Your task to perform on an android device: Open battery settings Image 0: 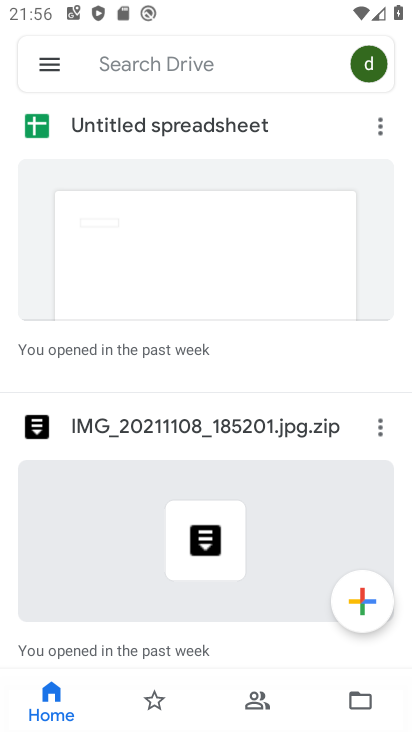
Step 0: press home button
Your task to perform on an android device: Open battery settings Image 1: 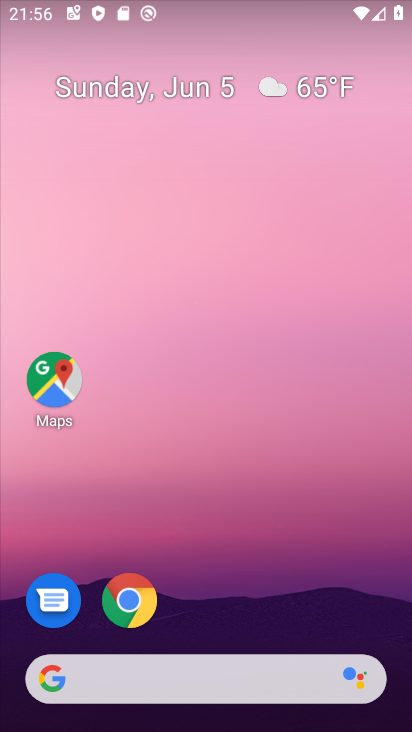
Step 1: drag from (293, 566) to (246, 194)
Your task to perform on an android device: Open battery settings Image 2: 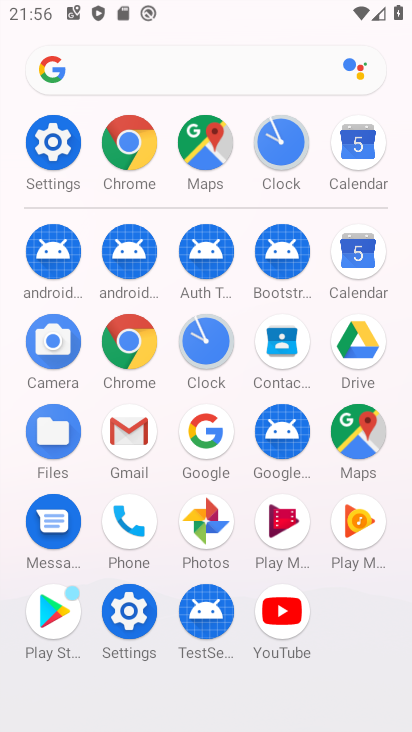
Step 2: click (39, 144)
Your task to perform on an android device: Open battery settings Image 3: 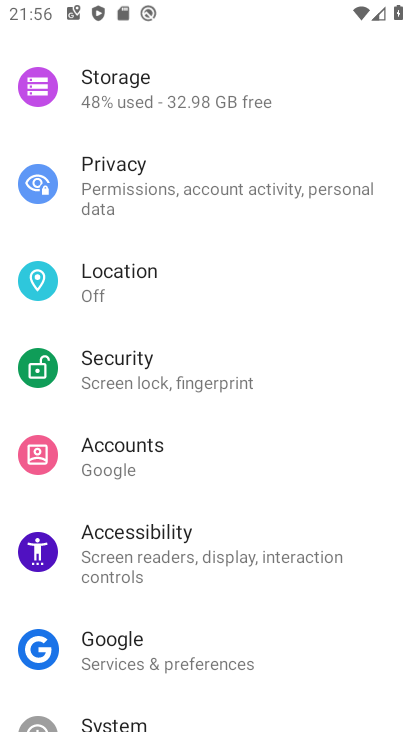
Step 3: drag from (206, 162) to (247, 585)
Your task to perform on an android device: Open battery settings Image 4: 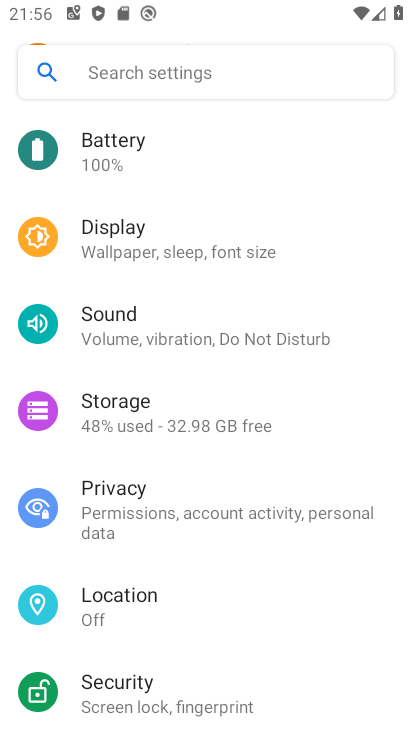
Step 4: click (136, 166)
Your task to perform on an android device: Open battery settings Image 5: 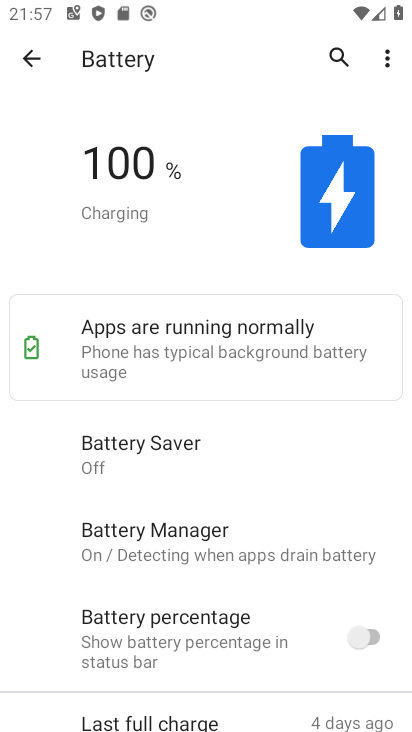
Step 5: task complete